Your task to perform on an android device: Add usb-a to usb-b to the cart on walmart Image 0: 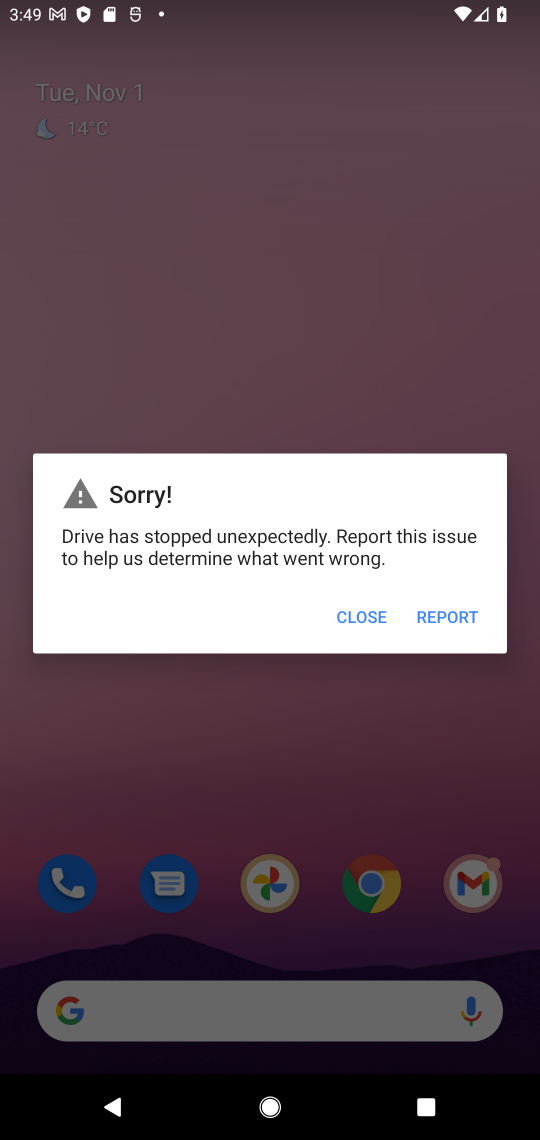
Step 0: click (356, 615)
Your task to perform on an android device: Add usb-a to usb-b to the cart on walmart Image 1: 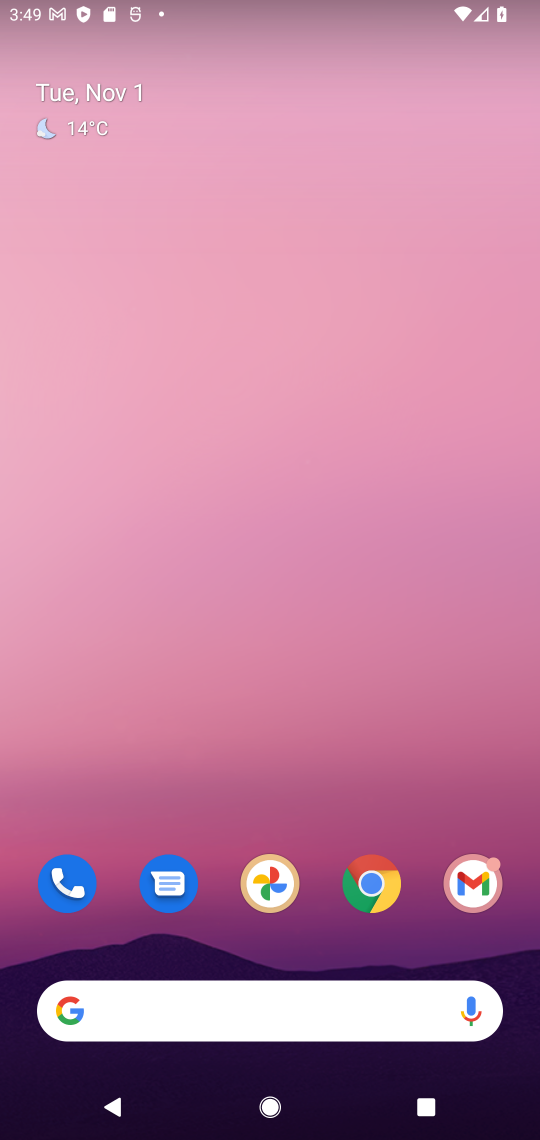
Step 1: click (370, 877)
Your task to perform on an android device: Add usb-a to usb-b to the cart on walmart Image 2: 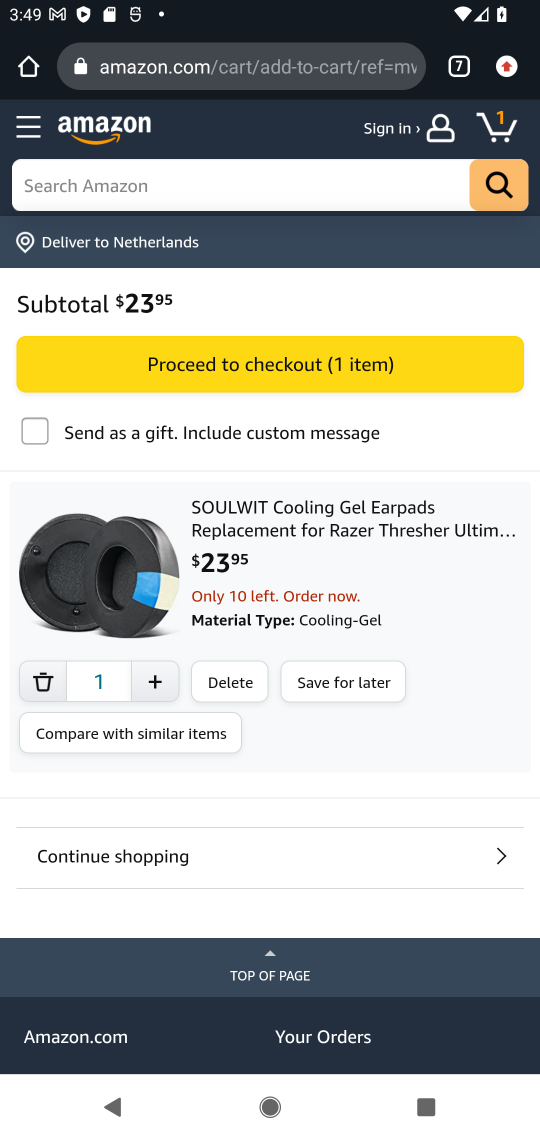
Step 2: click (463, 72)
Your task to perform on an android device: Add usb-a to usb-b to the cart on walmart Image 3: 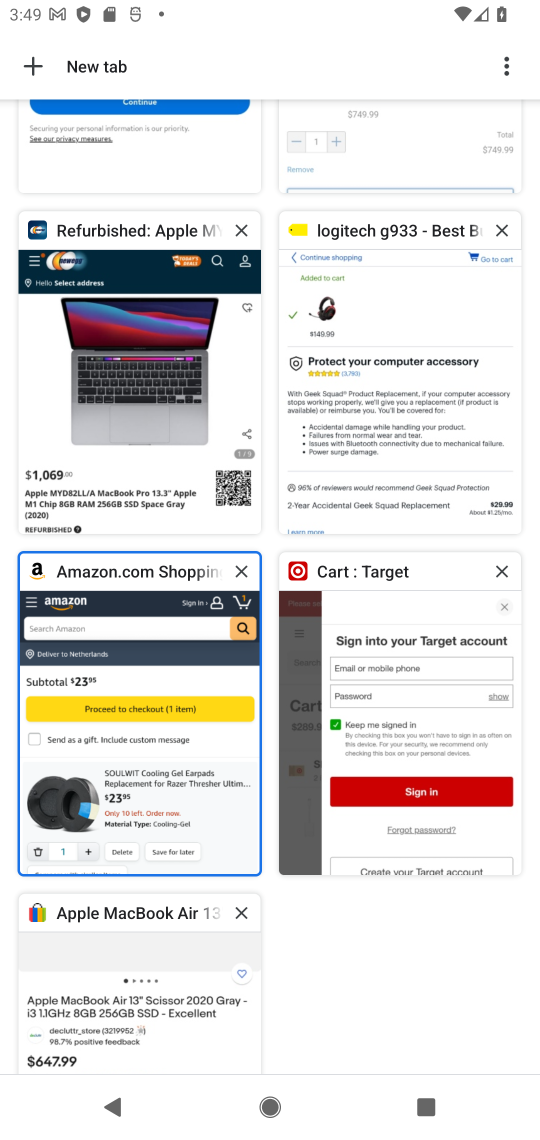
Step 3: drag from (277, 162) to (315, 1119)
Your task to perform on an android device: Add usb-a to usb-b to the cart on walmart Image 4: 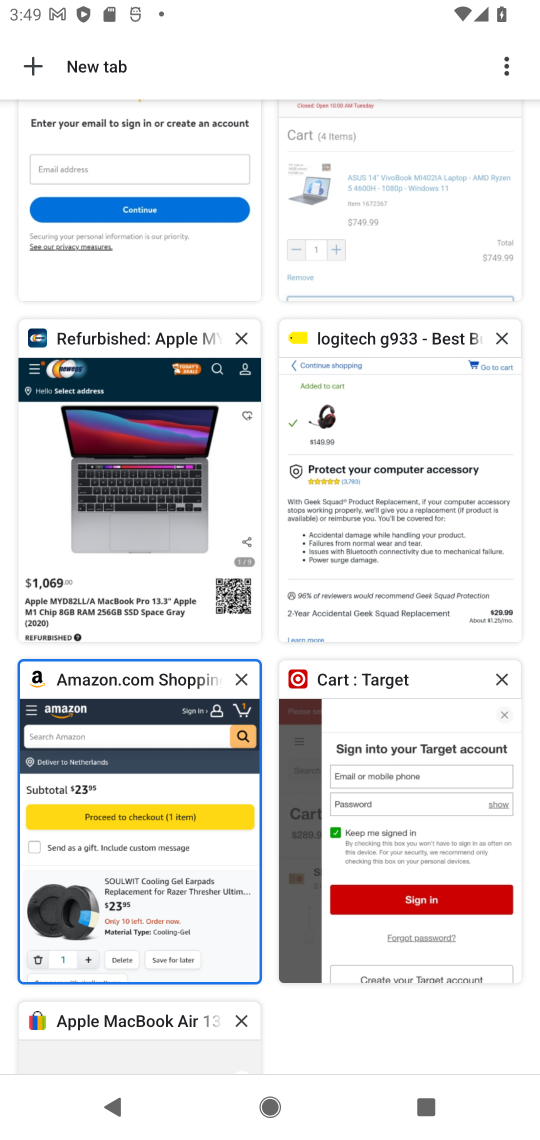
Step 4: drag from (170, 193) to (19, 1048)
Your task to perform on an android device: Add usb-a to usb-b to the cart on walmart Image 5: 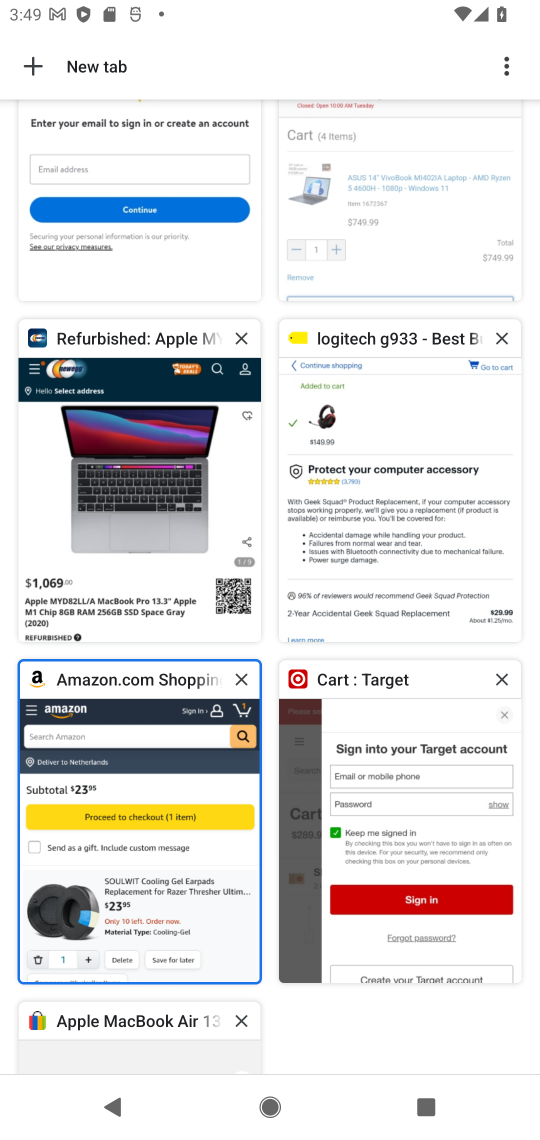
Step 5: click (107, 272)
Your task to perform on an android device: Add usb-a to usb-b to the cart on walmart Image 6: 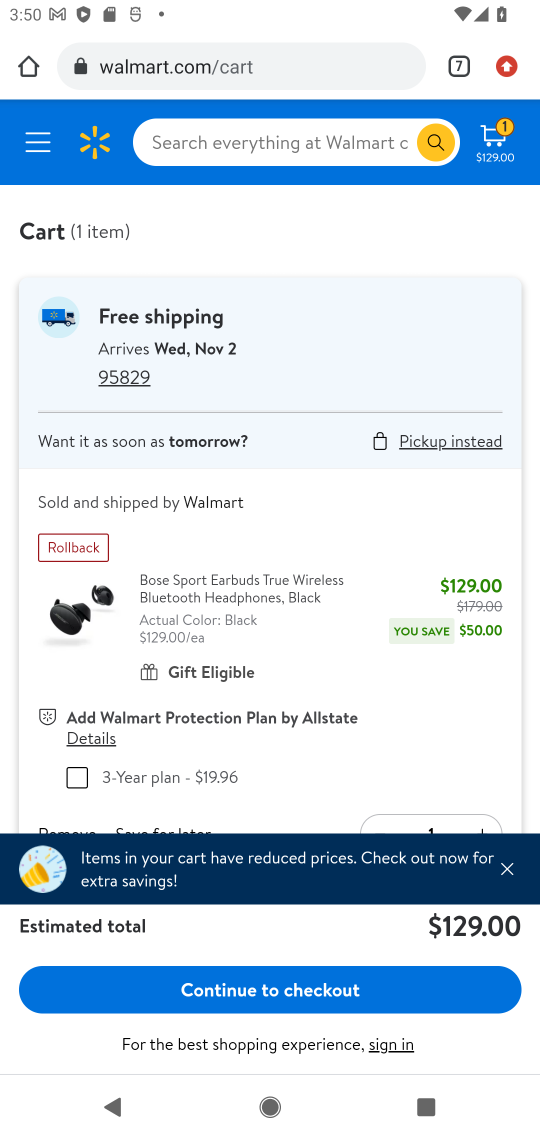
Step 6: click (241, 137)
Your task to perform on an android device: Add usb-a to usb-b to the cart on walmart Image 7: 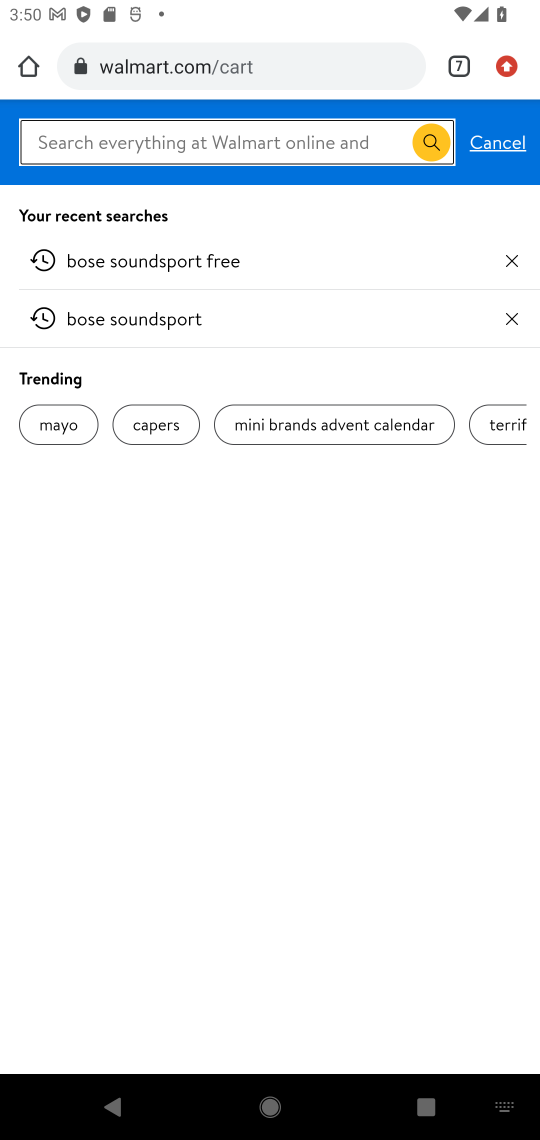
Step 7: type "usb-a to usb-b"
Your task to perform on an android device: Add usb-a to usb-b to the cart on walmart Image 8: 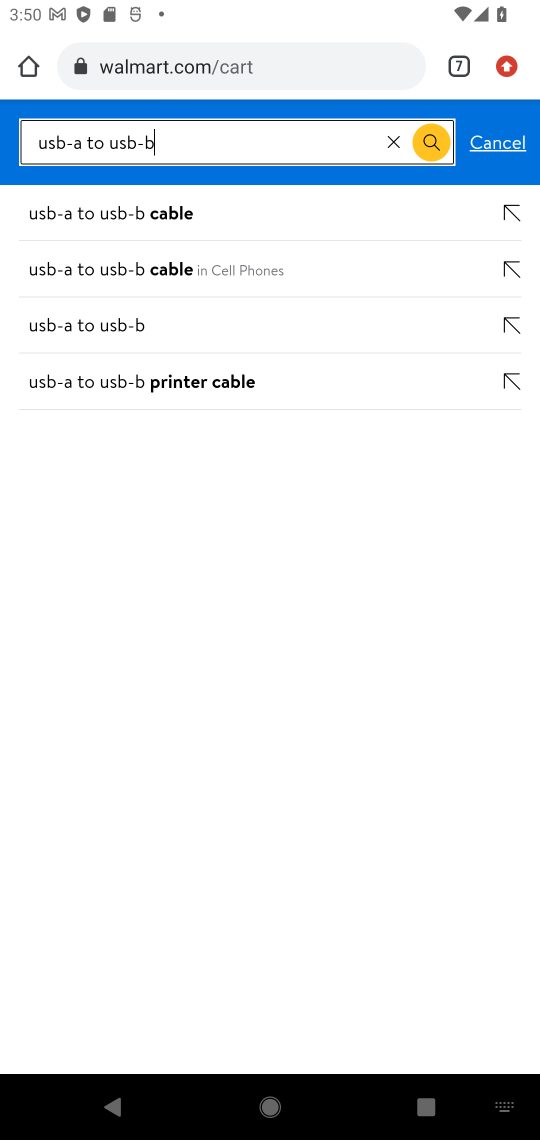
Step 8: click (150, 272)
Your task to perform on an android device: Add usb-a to usb-b to the cart on walmart Image 9: 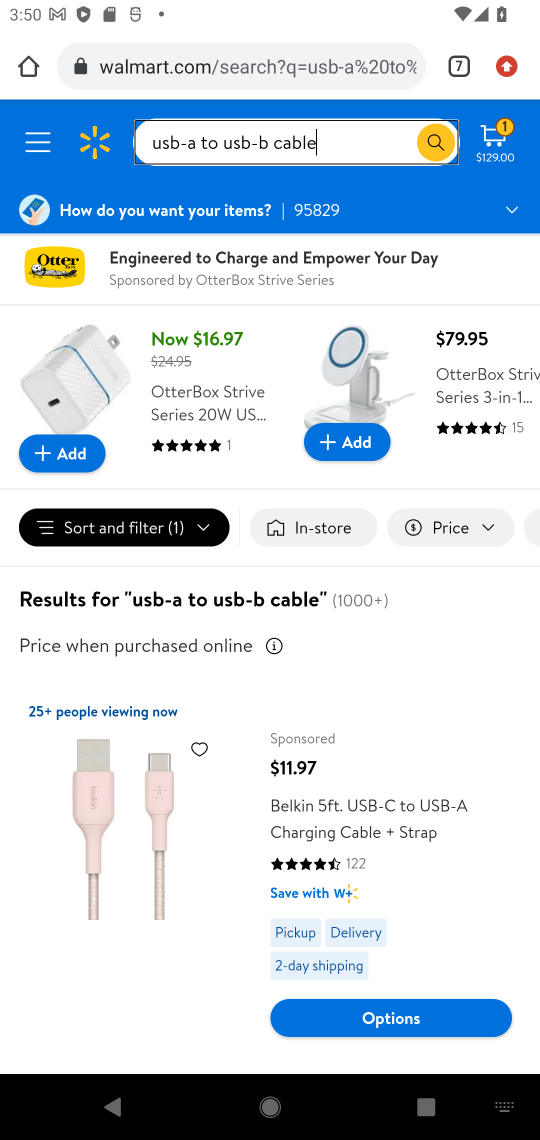
Step 9: drag from (403, 928) to (380, 520)
Your task to perform on an android device: Add usb-a to usb-b to the cart on walmart Image 10: 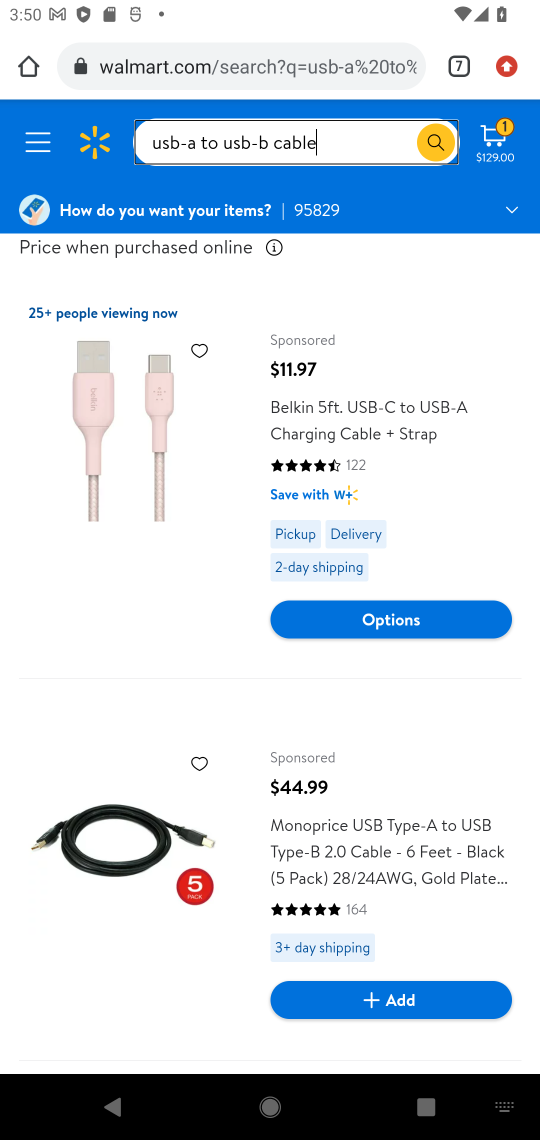
Step 10: click (380, 996)
Your task to perform on an android device: Add usb-a to usb-b to the cart on walmart Image 11: 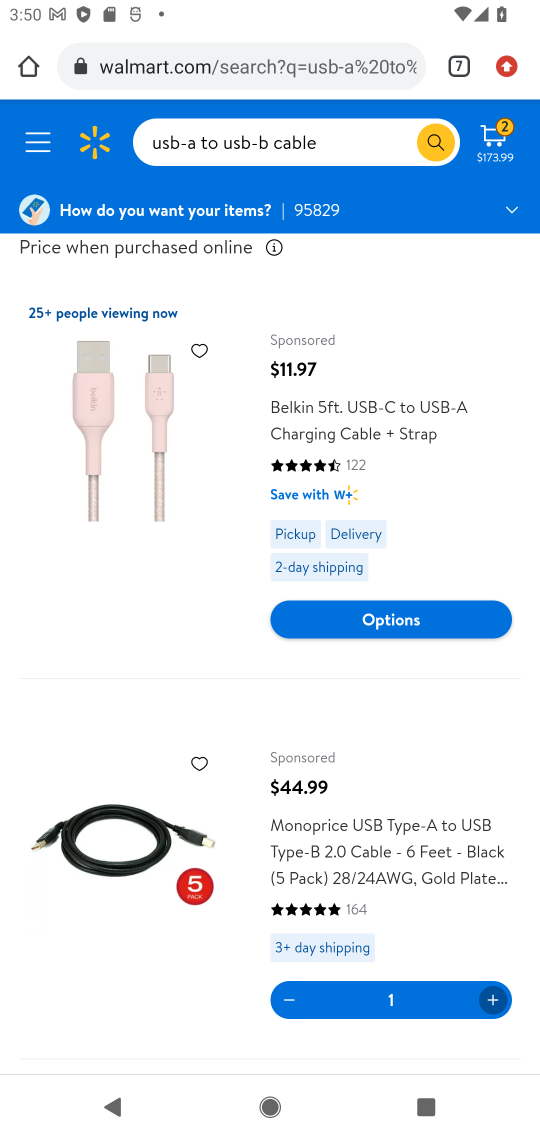
Step 11: task complete